Your task to perform on an android device: change timer sound Image 0: 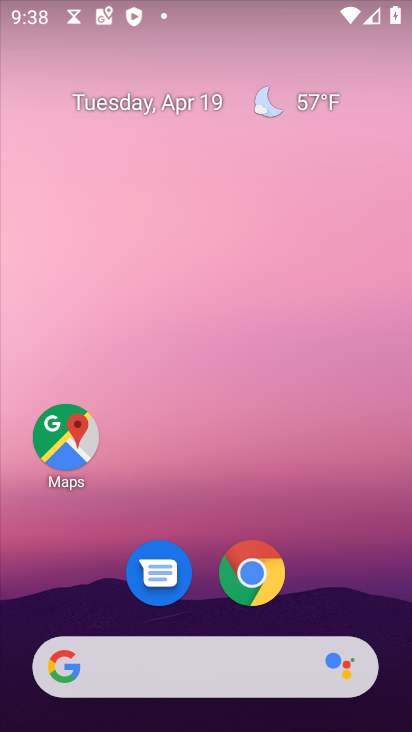
Step 0: drag from (327, 610) to (313, 45)
Your task to perform on an android device: change timer sound Image 1: 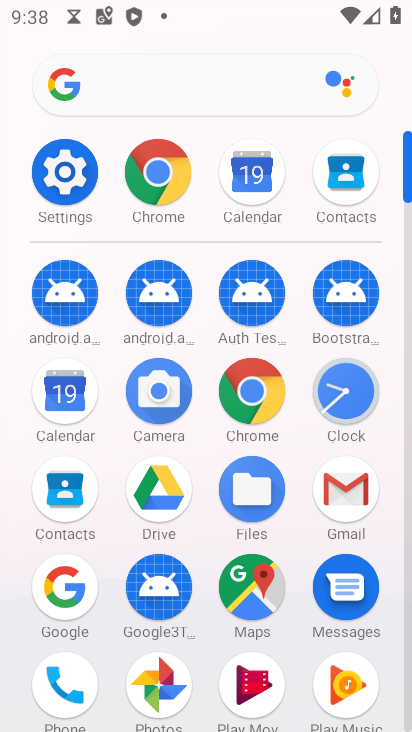
Step 1: click (74, 175)
Your task to perform on an android device: change timer sound Image 2: 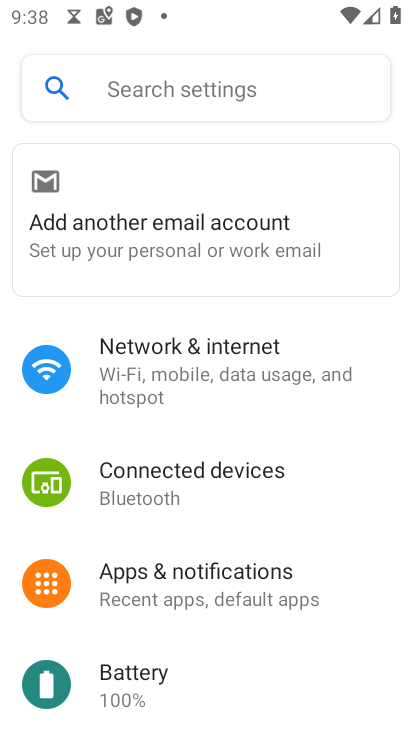
Step 2: drag from (271, 648) to (268, 220)
Your task to perform on an android device: change timer sound Image 3: 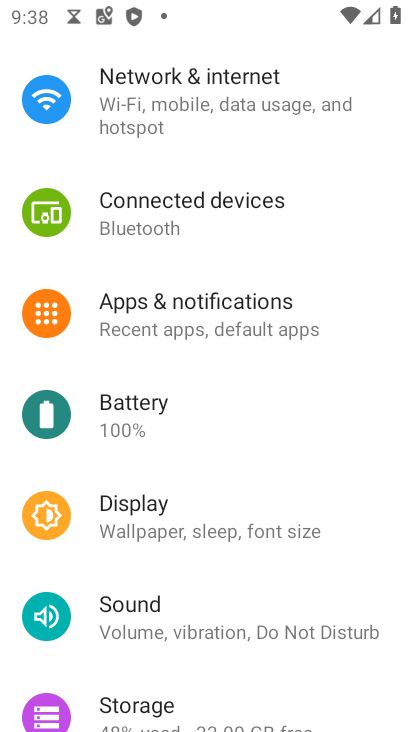
Step 3: click (211, 617)
Your task to perform on an android device: change timer sound Image 4: 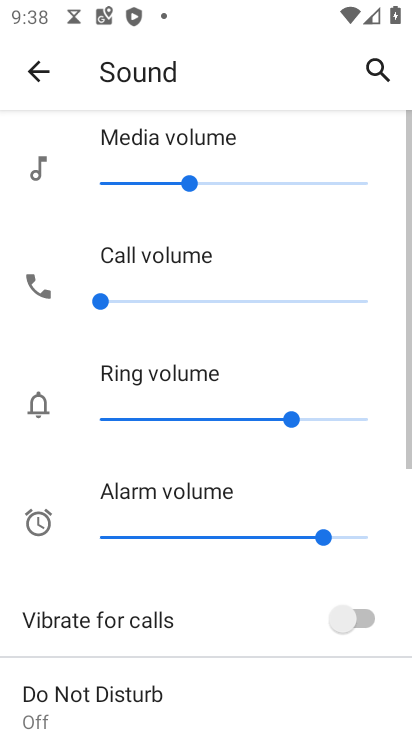
Step 4: drag from (241, 647) to (273, 157)
Your task to perform on an android device: change timer sound Image 5: 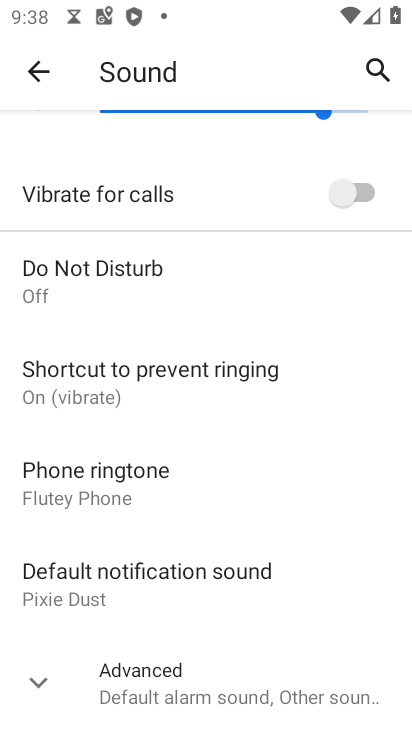
Step 5: click (236, 688)
Your task to perform on an android device: change timer sound Image 6: 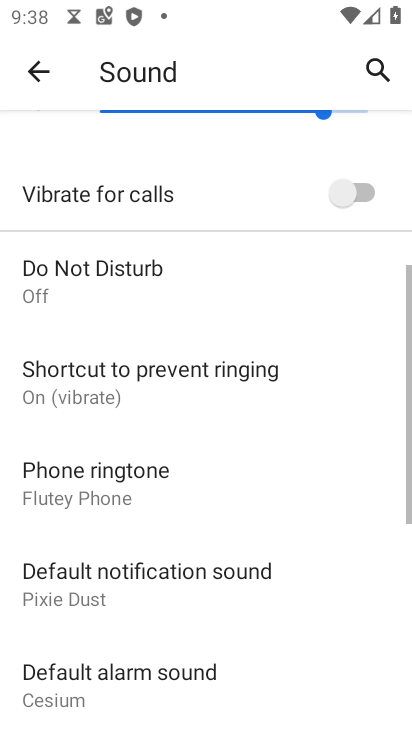
Step 6: drag from (253, 659) to (294, 342)
Your task to perform on an android device: change timer sound Image 7: 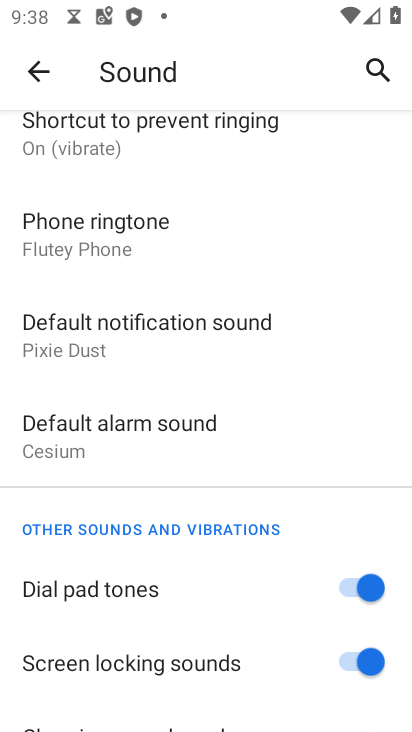
Step 7: click (114, 439)
Your task to perform on an android device: change timer sound Image 8: 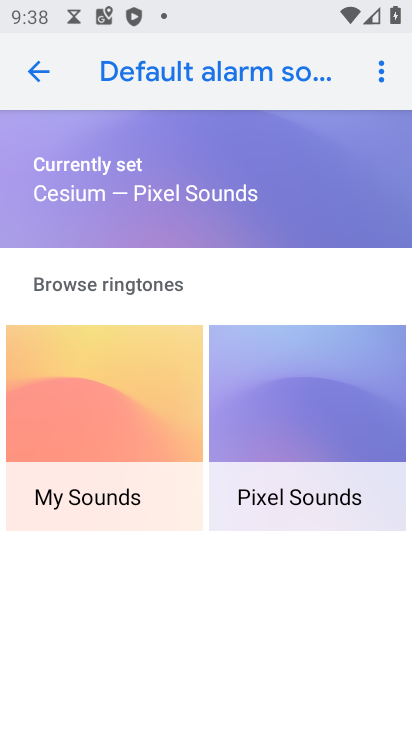
Step 8: click (292, 487)
Your task to perform on an android device: change timer sound Image 9: 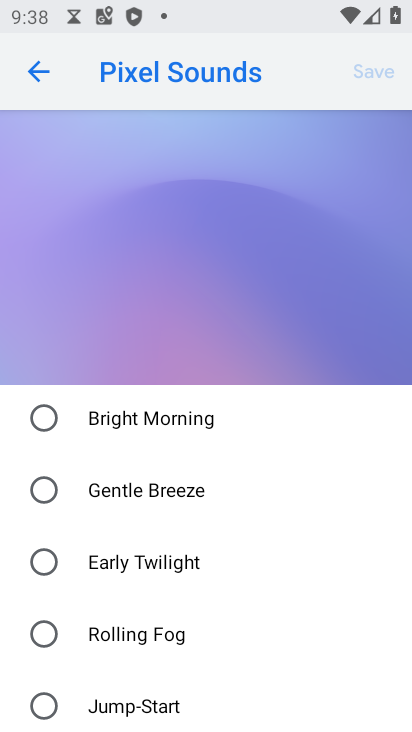
Step 9: click (43, 486)
Your task to perform on an android device: change timer sound Image 10: 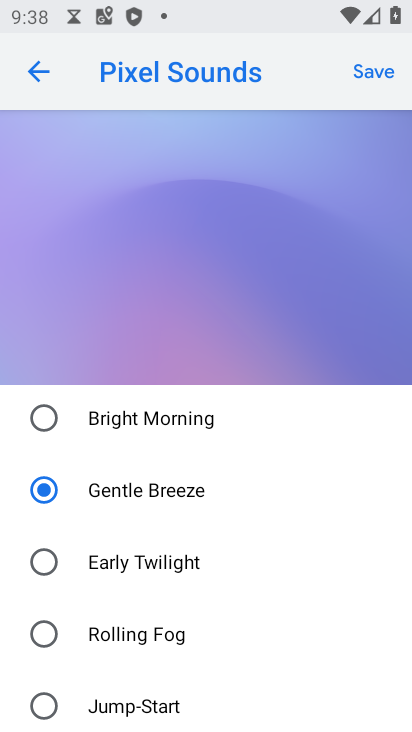
Step 10: click (377, 73)
Your task to perform on an android device: change timer sound Image 11: 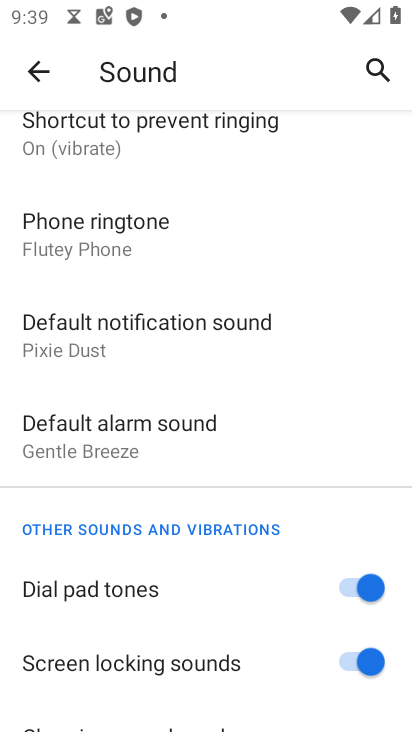
Step 11: task complete